Your task to perform on an android device: Open settings on Google Maps Image 0: 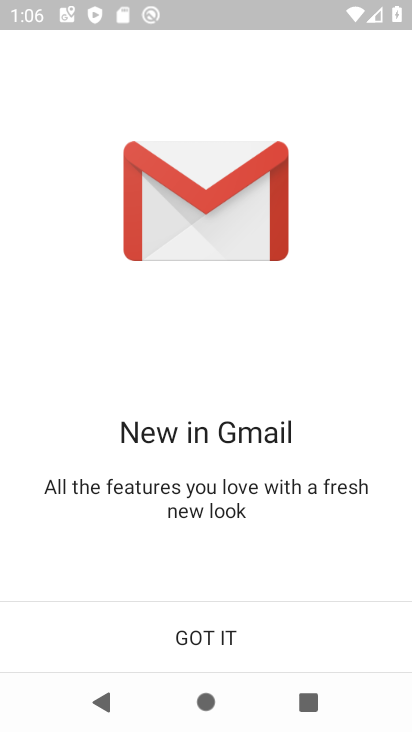
Step 0: press home button
Your task to perform on an android device: Open settings on Google Maps Image 1: 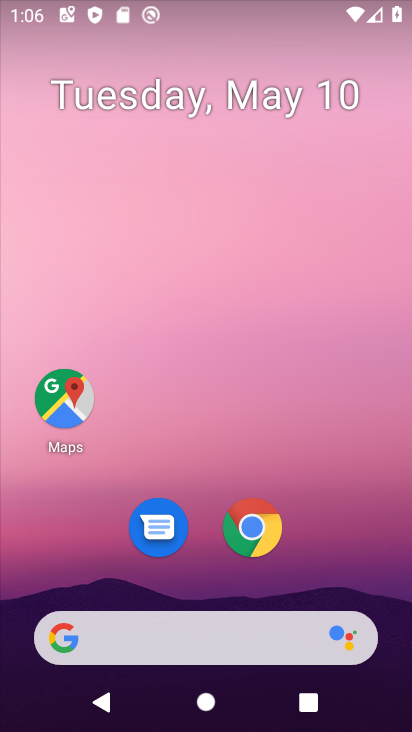
Step 1: click (66, 403)
Your task to perform on an android device: Open settings on Google Maps Image 2: 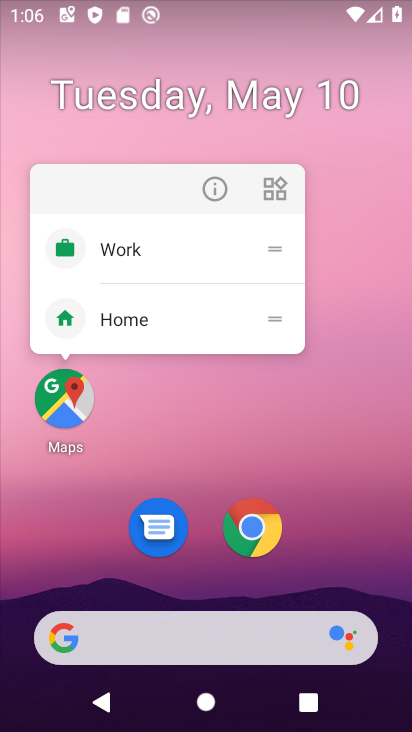
Step 2: click (58, 399)
Your task to perform on an android device: Open settings on Google Maps Image 3: 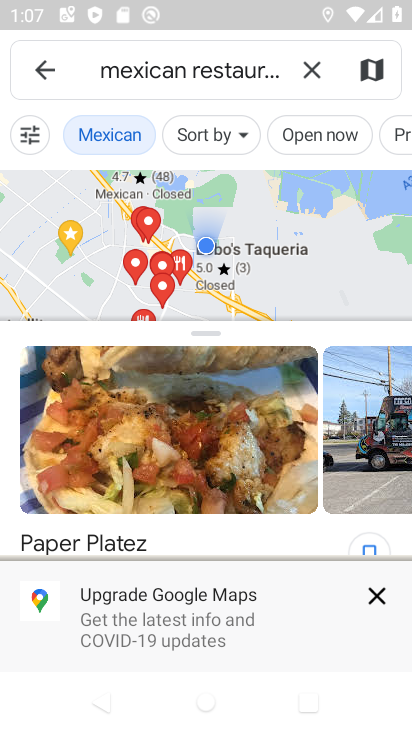
Step 3: task complete